Your task to perform on an android device: turn on wifi Image 0: 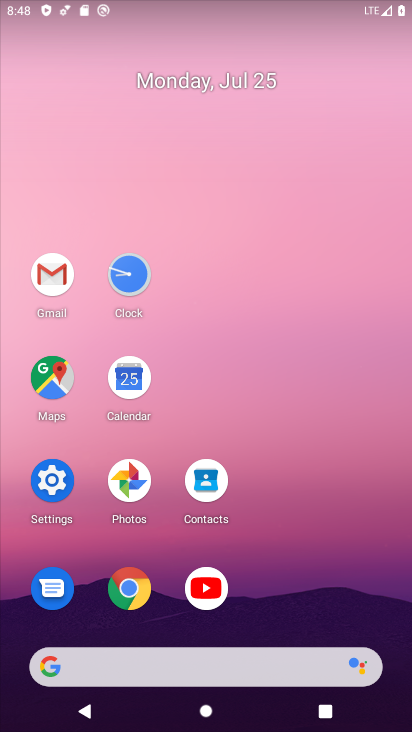
Step 0: click (53, 480)
Your task to perform on an android device: turn on wifi Image 1: 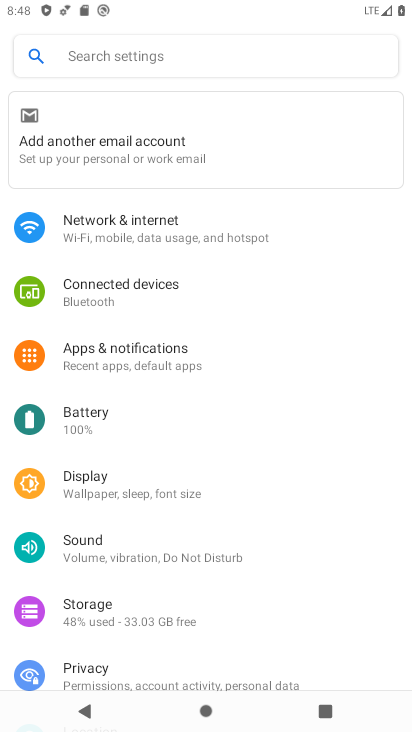
Step 1: click (124, 216)
Your task to perform on an android device: turn on wifi Image 2: 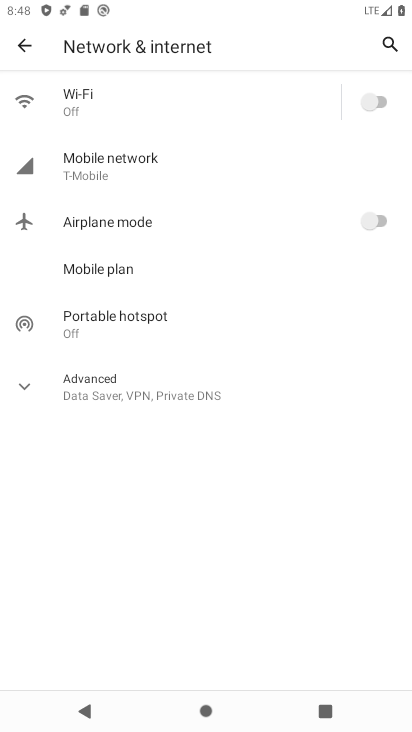
Step 2: click (370, 98)
Your task to perform on an android device: turn on wifi Image 3: 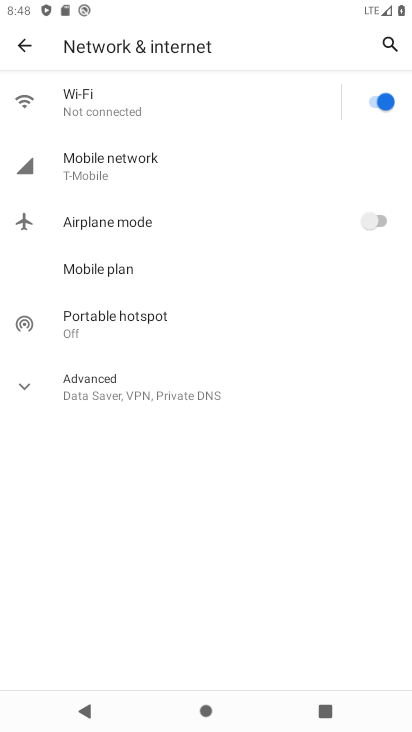
Step 3: task complete